Your task to perform on an android device: Go to eBay Image 0: 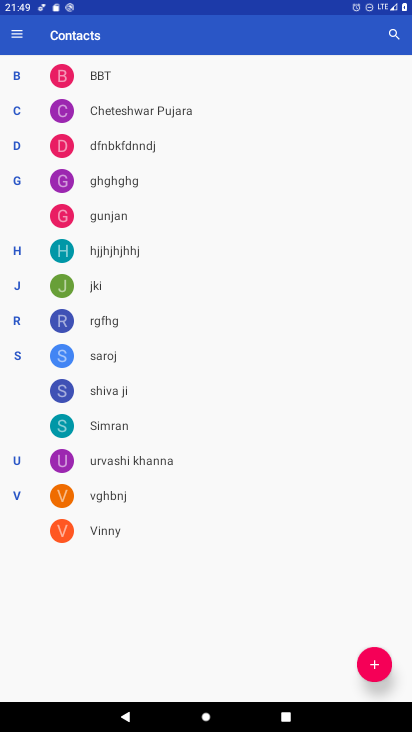
Step 0: press home button
Your task to perform on an android device: Go to eBay Image 1: 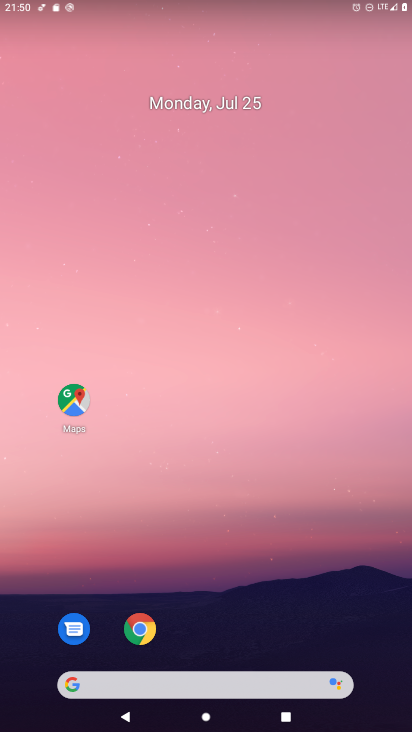
Step 1: click (139, 631)
Your task to perform on an android device: Go to eBay Image 2: 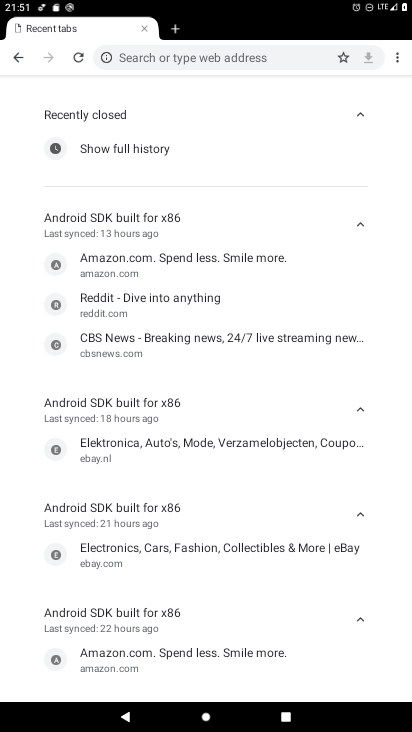
Step 2: click (180, 72)
Your task to perform on an android device: Go to eBay Image 3: 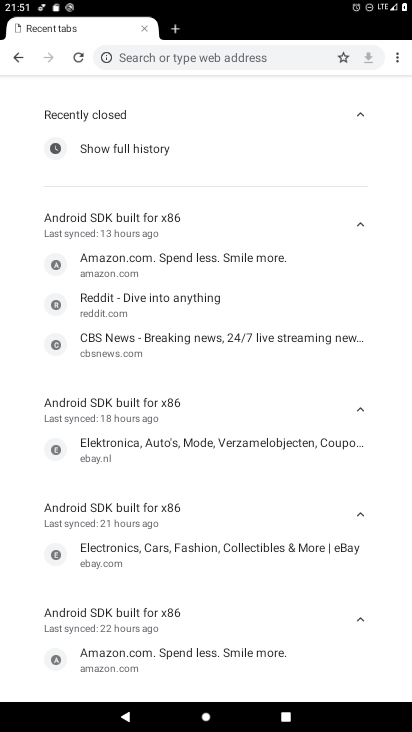
Step 3: click (218, 52)
Your task to perform on an android device: Go to eBay Image 4: 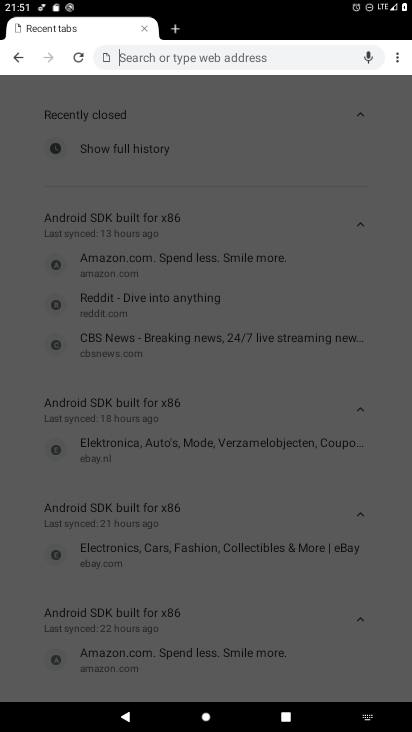
Step 4: type "eBay"
Your task to perform on an android device: Go to eBay Image 5: 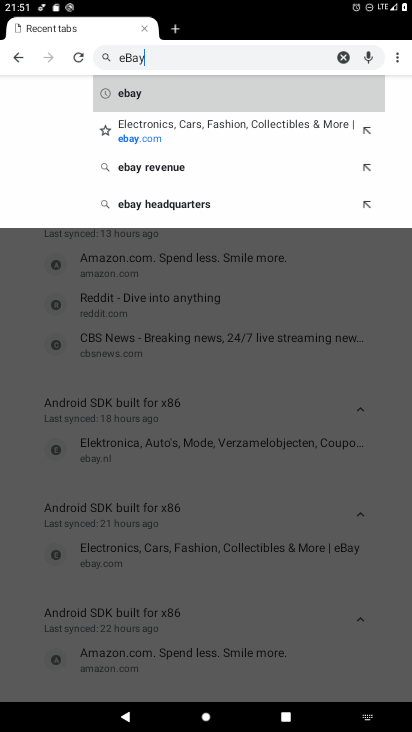
Step 5: type ""
Your task to perform on an android device: Go to eBay Image 6: 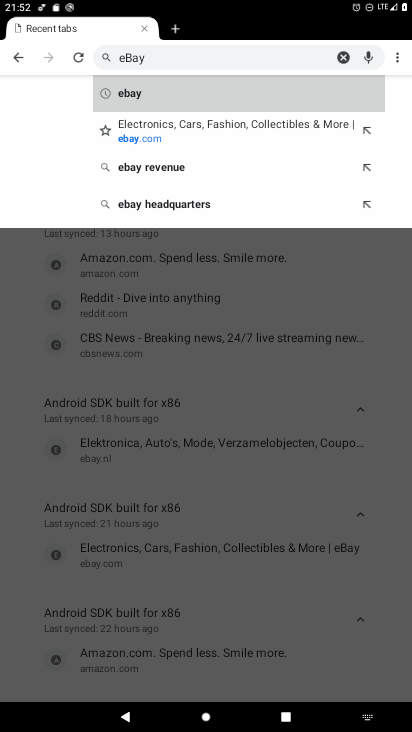
Step 6: click (179, 128)
Your task to perform on an android device: Go to eBay Image 7: 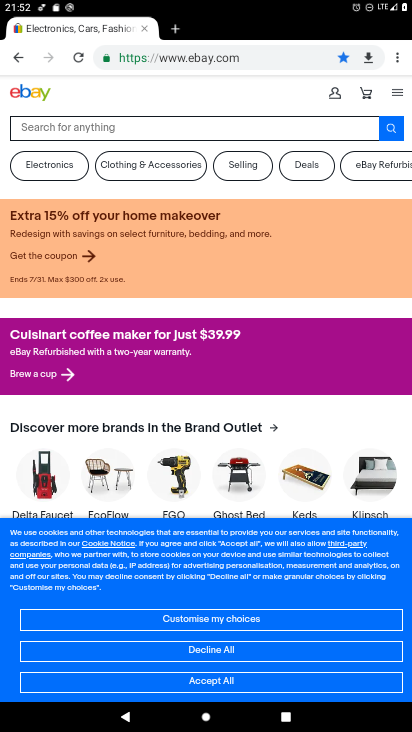
Step 7: task complete